Your task to perform on an android device: Set the phone to "Do not disturb". Image 0: 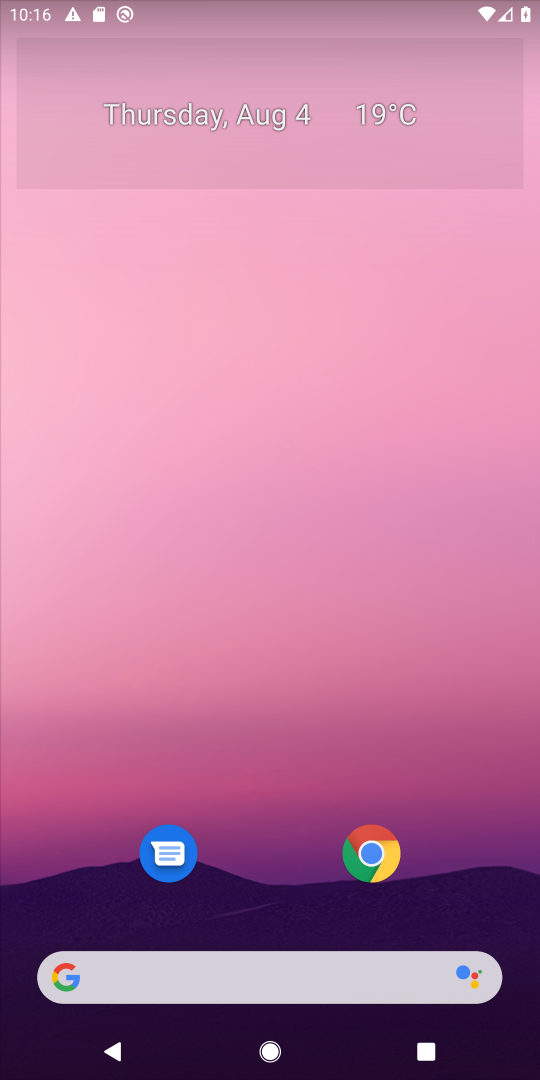
Step 0: drag from (233, 735) to (225, 0)
Your task to perform on an android device: Set the phone to "Do not disturb". Image 1: 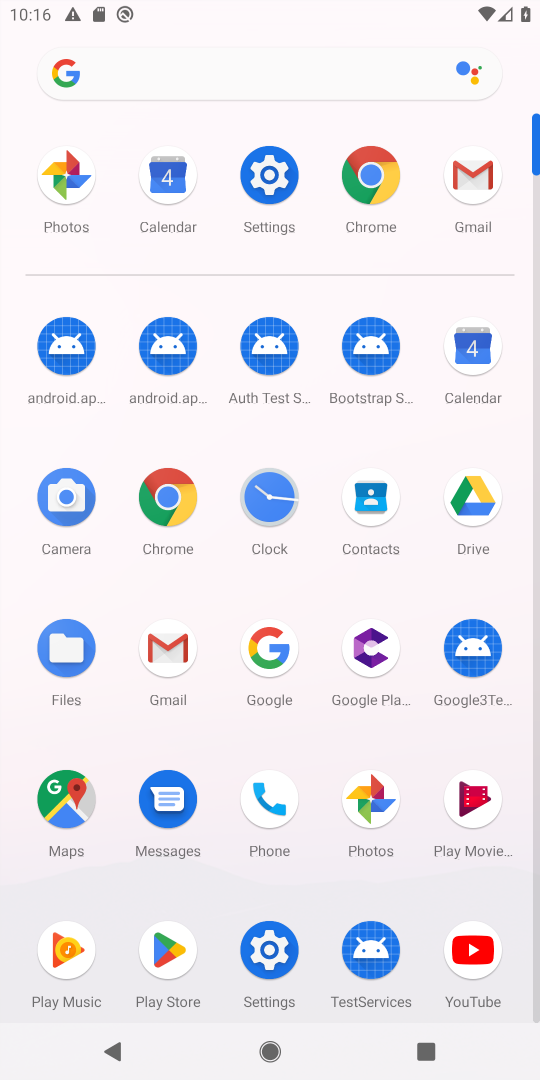
Step 1: click (278, 823)
Your task to perform on an android device: Set the phone to "Do not disturb". Image 2: 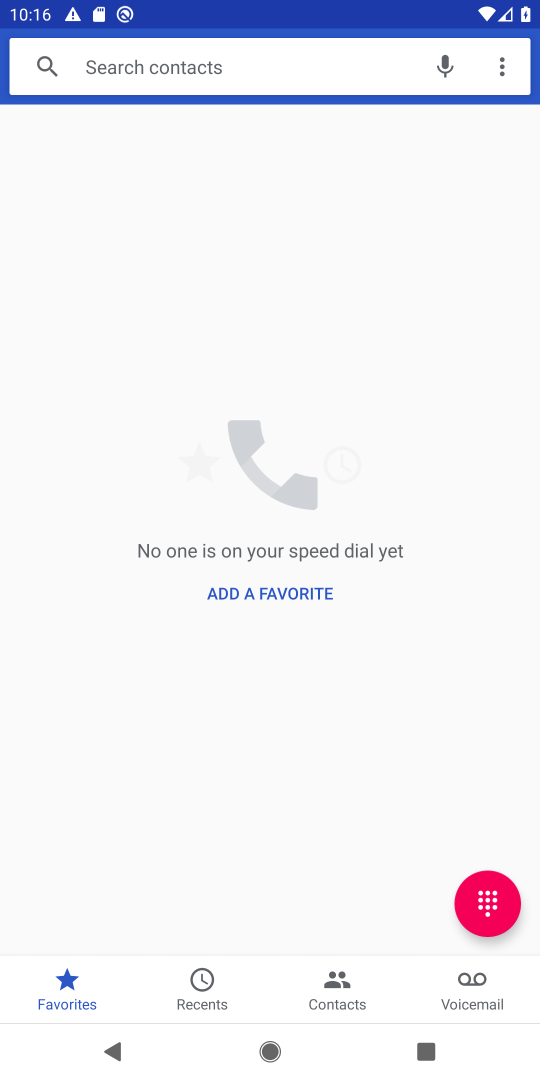
Step 2: press home button
Your task to perform on an android device: Set the phone to "Do not disturb". Image 3: 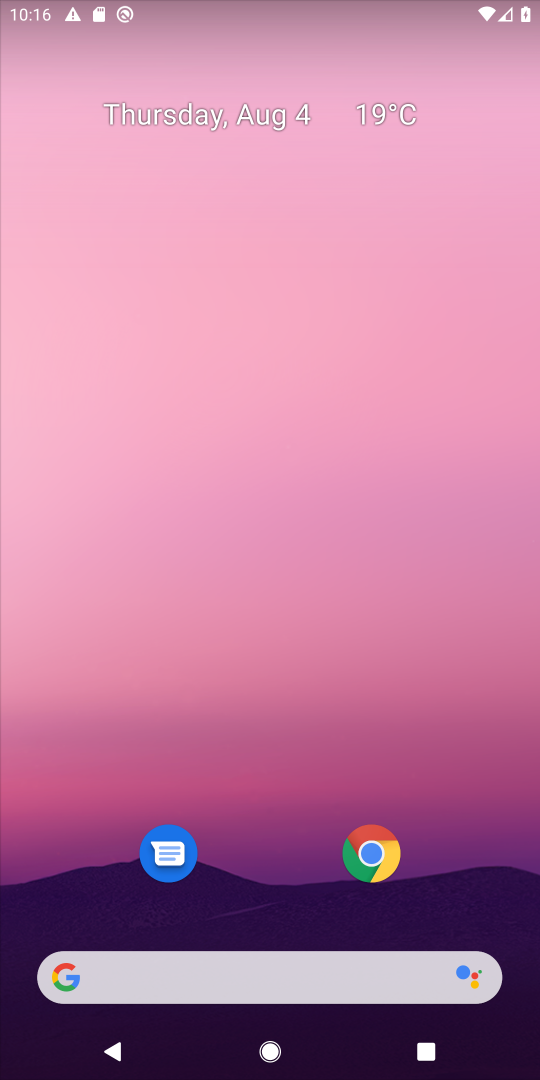
Step 3: drag from (244, 620) to (406, 0)
Your task to perform on an android device: Set the phone to "Do not disturb". Image 4: 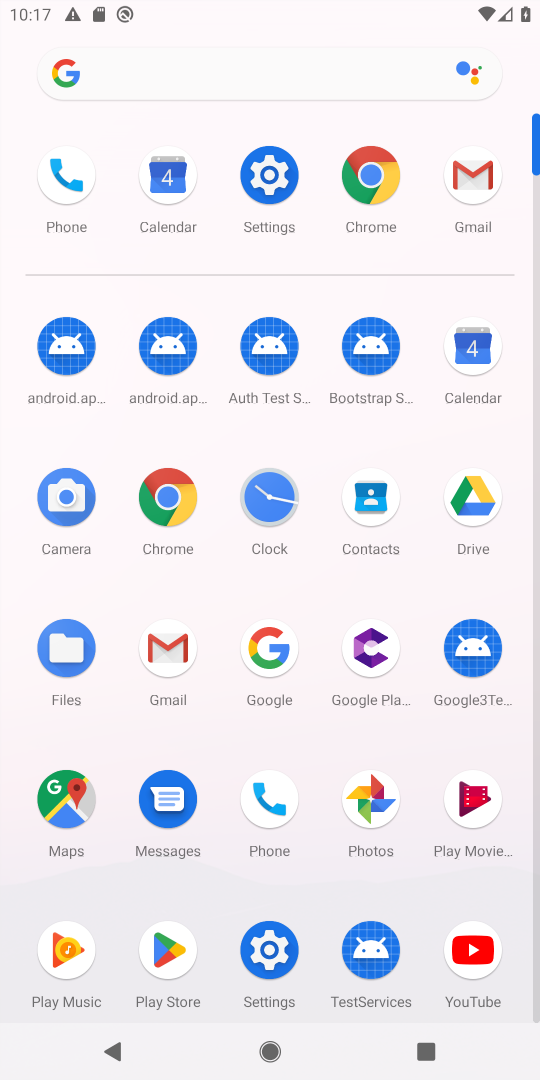
Step 4: click (272, 949)
Your task to perform on an android device: Set the phone to "Do not disturb". Image 5: 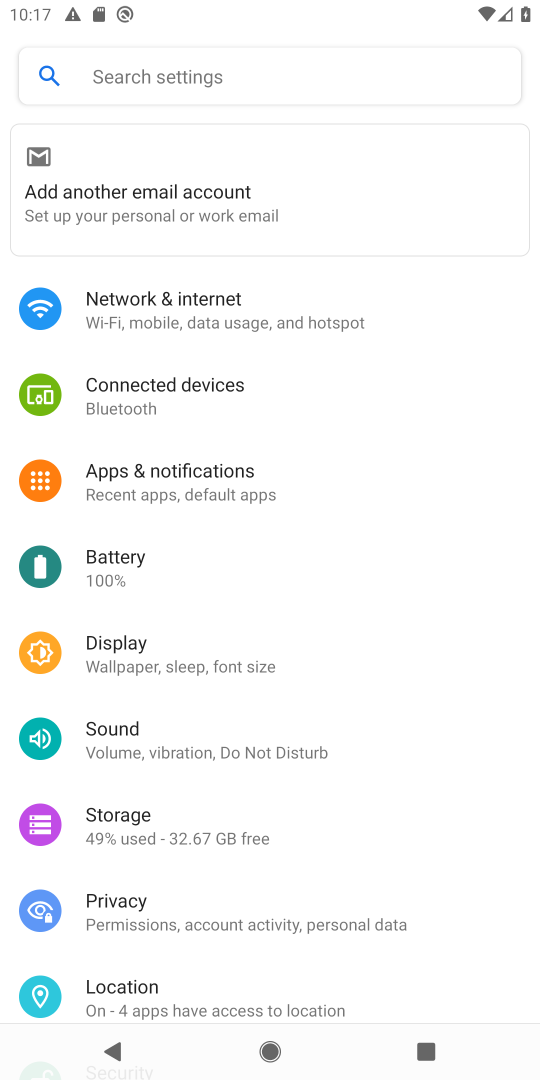
Step 5: click (179, 751)
Your task to perform on an android device: Set the phone to "Do not disturb". Image 6: 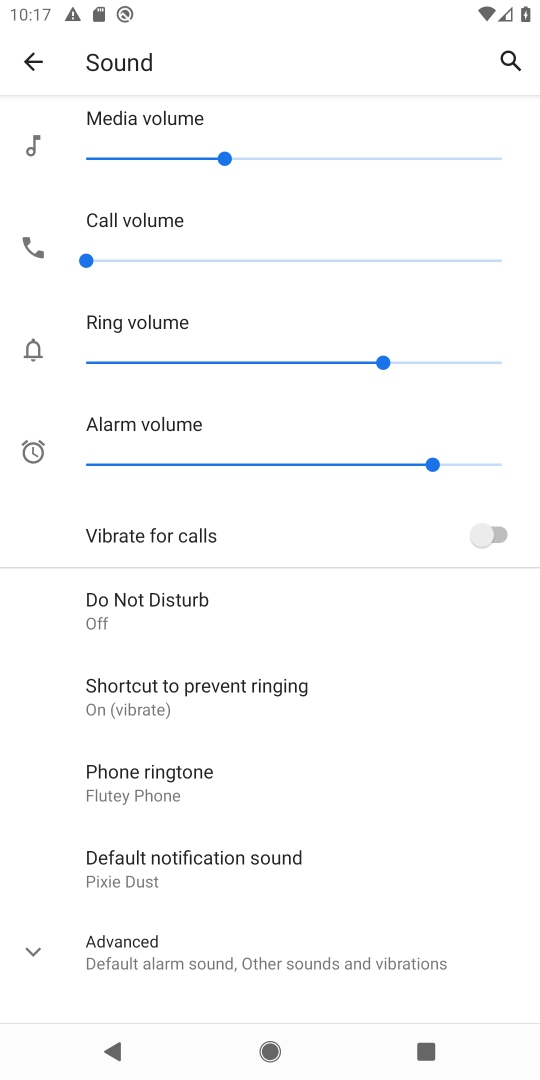
Step 6: click (145, 614)
Your task to perform on an android device: Set the phone to "Do not disturb". Image 7: 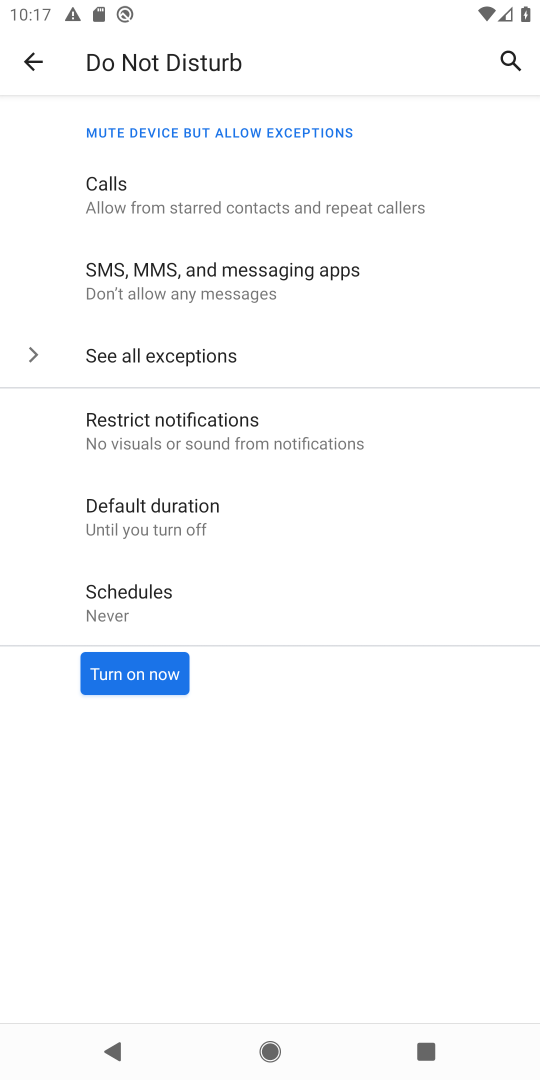
Step 7: click (181, 666)
Your task to perform on an android device: Set the phone to "Do not disturb". Image 8: 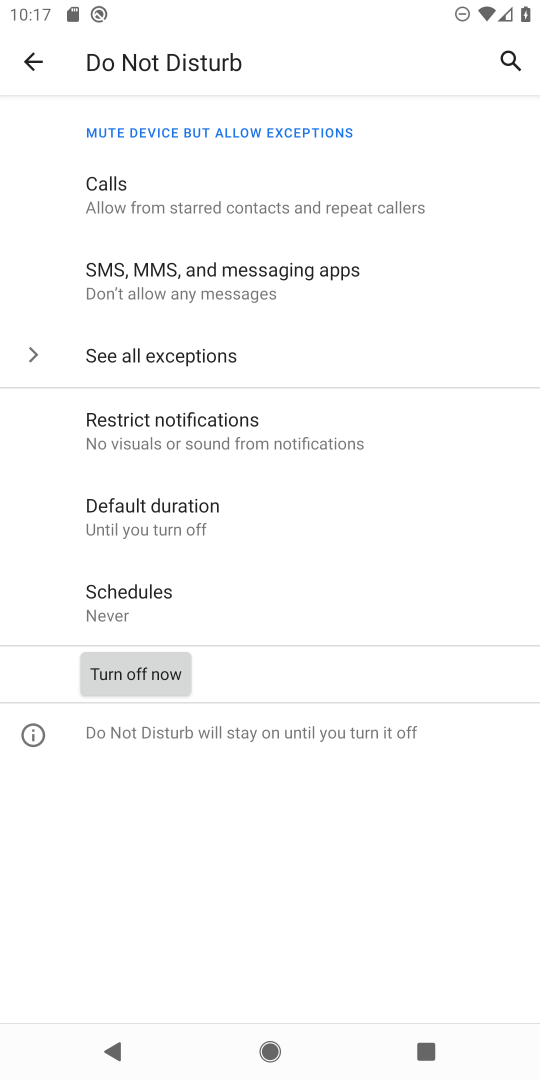
Step 8: task complete